Your task to perform on an android device: empty trash in google photos Image 0: 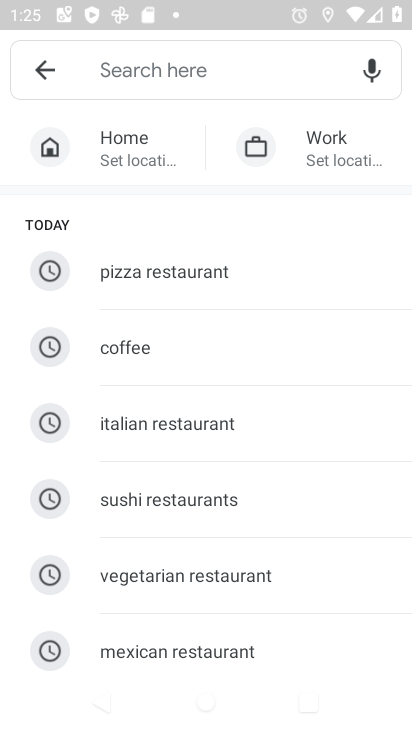
Step 0: press home button
Your task to perform on an android device: empty trash in google photos Image 1: 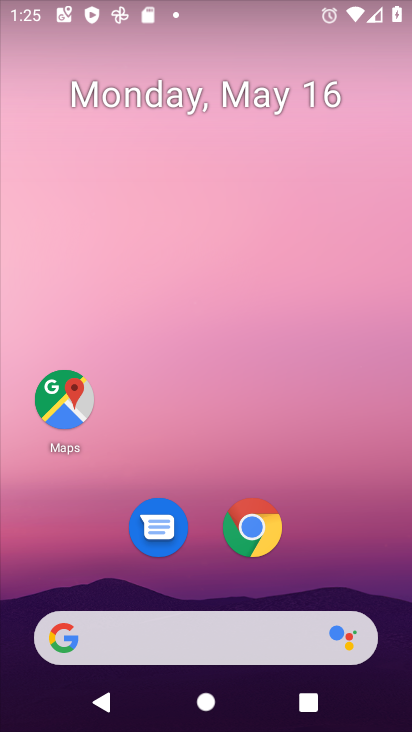
Step 1: drag from (372, 525) to (325, 18)
Your task to perform on an android device: empty trash in google photos Image 2: 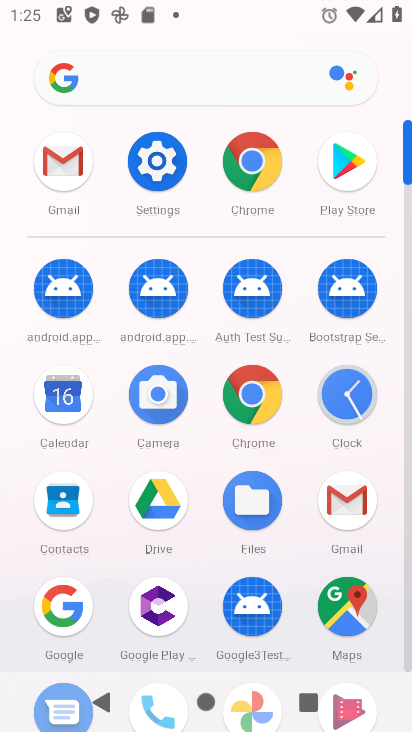
Step 2: click (269, 399)
Your task to perform on an android device: empty trash in google photos Image 3: 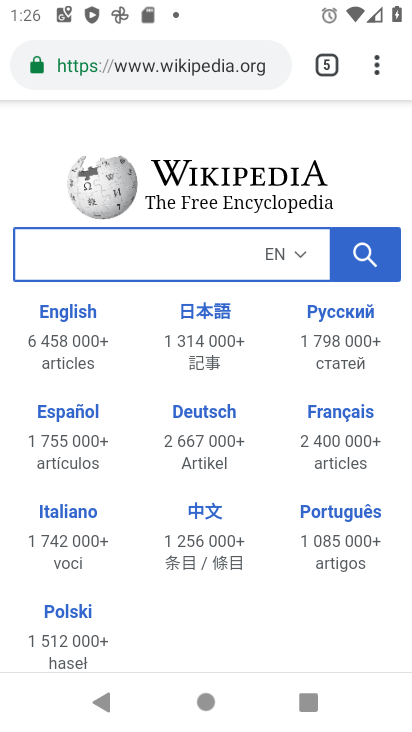
Step 3: click (380, 83)
Your task to perform on an android device: empty trash in google photos Image 4: 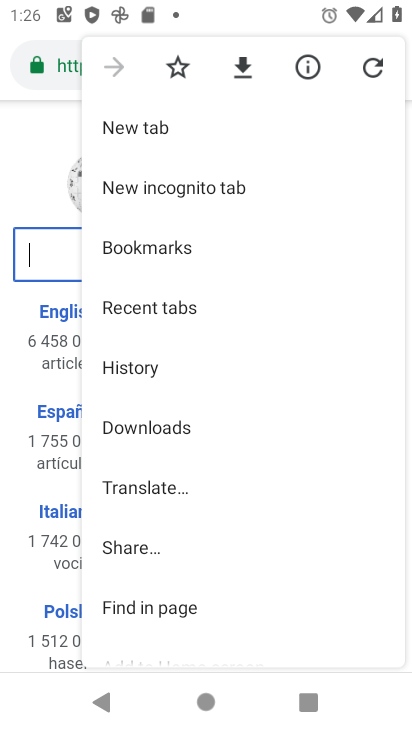
Step 4: drag from (185, 649) to (186, 229)
Your task to perform on an android device: empty trash in google photos Image 5: 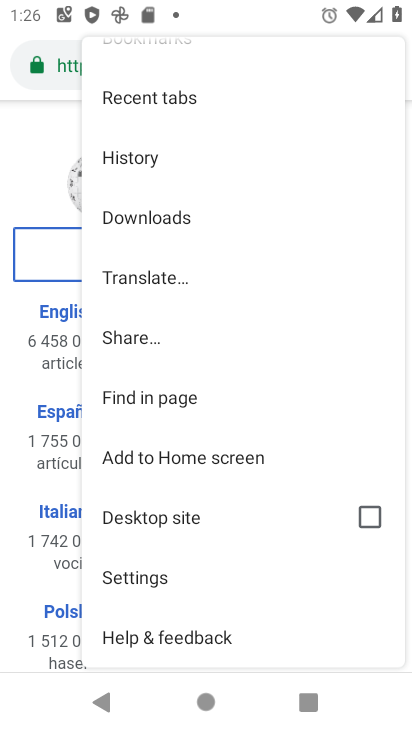
Step 5: press home button
Your task to perform on an android device: empty trash in google photos Image 6: 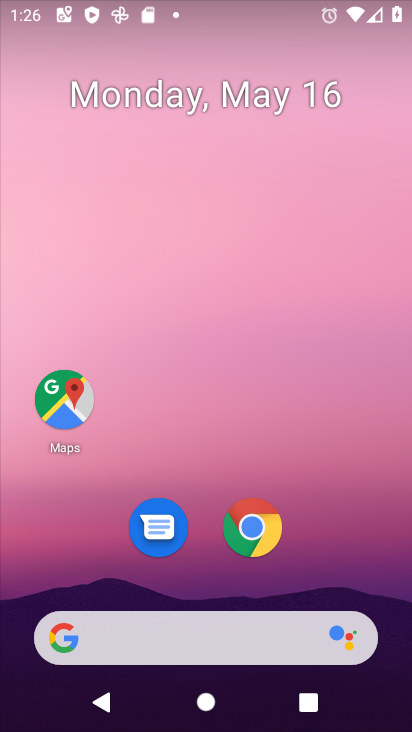
Step 6: drag from (311, 622) to (305, 434)
Your task to perform on an android device: empty trash in google photos Image 7: 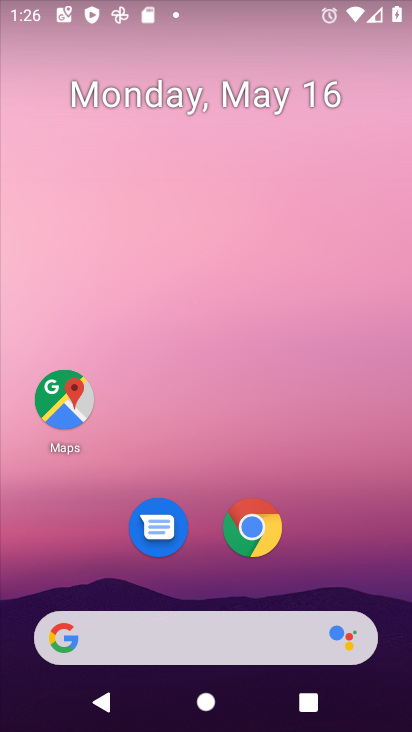
Step 7: drag from (344, 483) to (191, 56)
Your task to perform on an android device: empty trash in google photos Image 8: 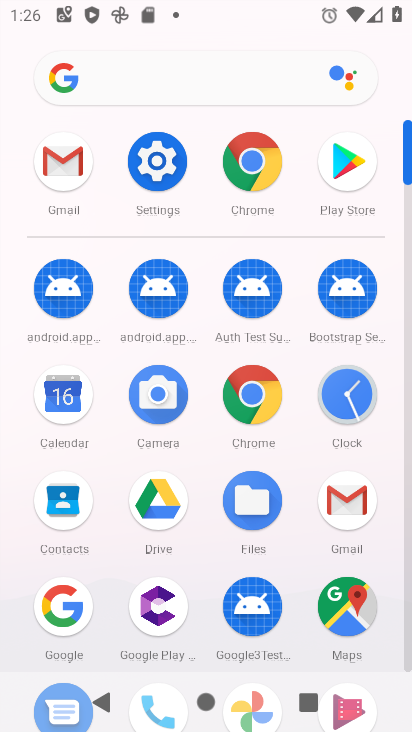
Step 8: click (411, 526)
Your task to perform on an android device: empty trash in google photos Image 9: 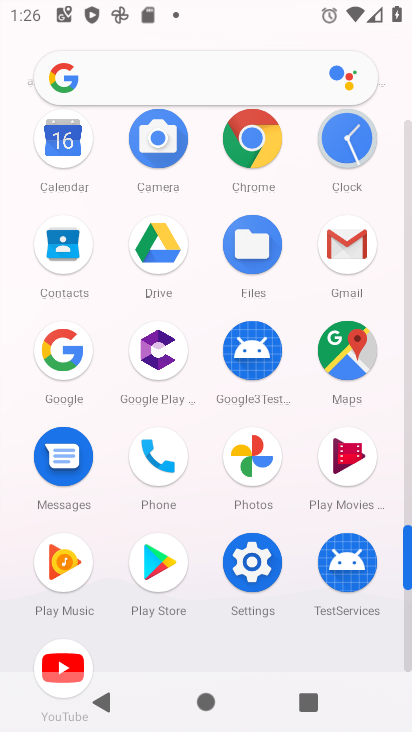
Step 9: click (239, 490)
Your task to perform on an android device: empty trash in google photos Image 10: 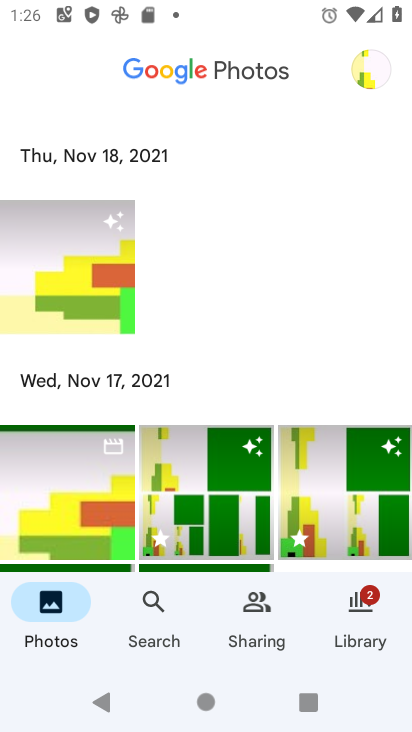
Step 10: click (387, 68)
Your task to perform on an android device: empty trash in google photos Image 11: 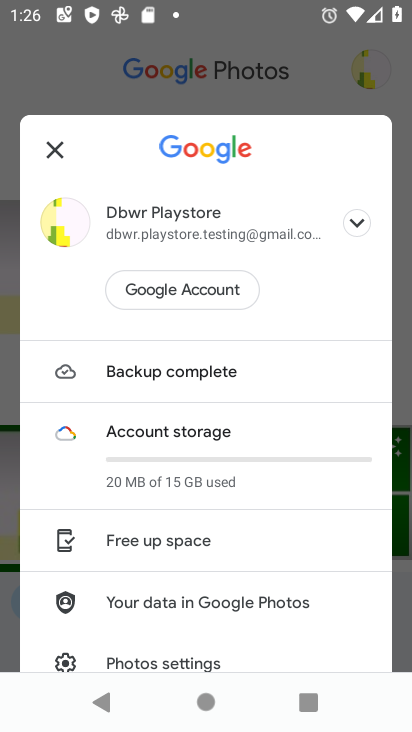
Step 11: click (56, 161)
Your task to perform on an android device: empty trash in google photos Image 12: 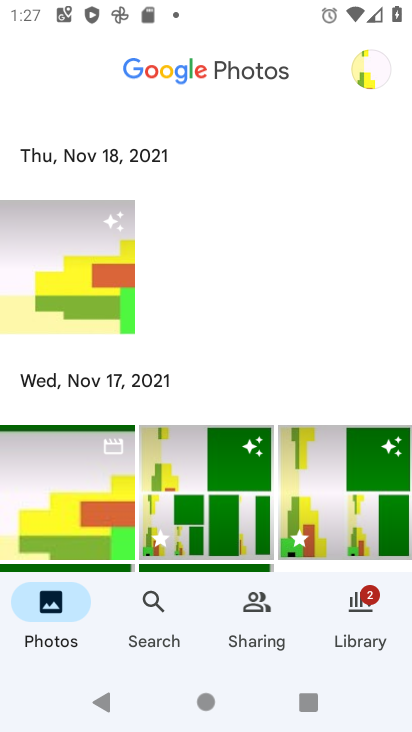
Step 12: click (351, 612)
Your task to perform on an android device: empty trash in google photos Image 13: 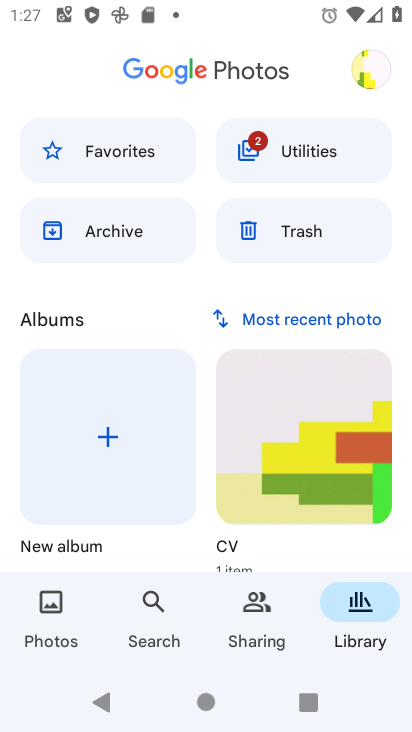
Step 13: click (320, 204)
Your task to perform on an android device: empty trash in google photos Image 14: 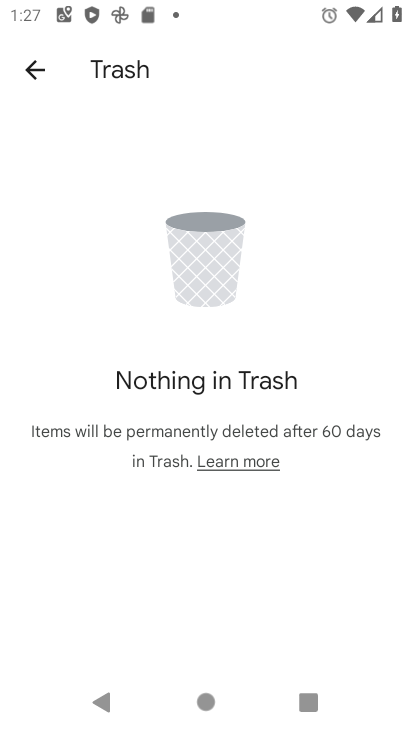
Step 14: task complete